Your task to perform on an android device: What is the recent news? Image 0: 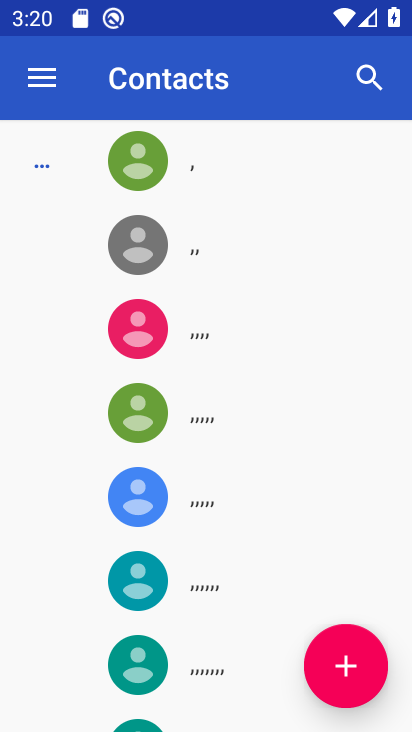
Step 0: press back button
Your task to perform on an android device: What is the recent news? Image 1: 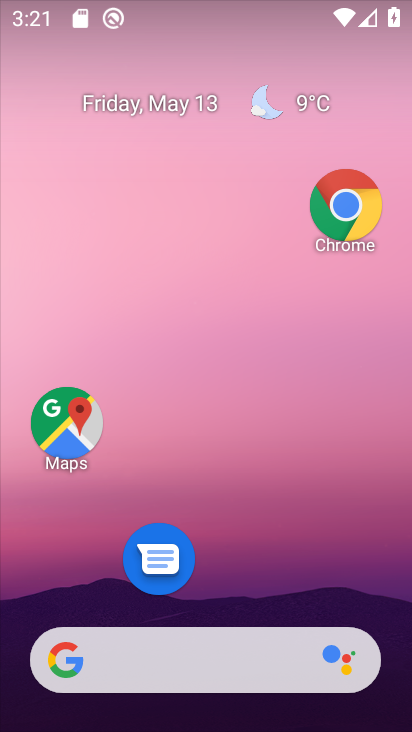
Step 1: click (199, 660)
Your task to perform on an android device: What is the recent news? Image 2: 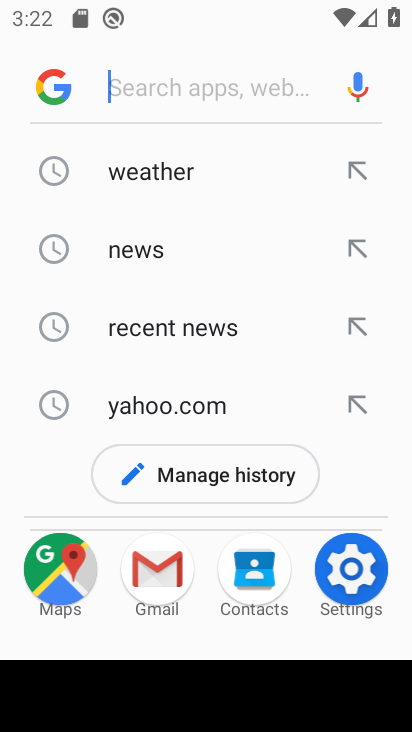
Step 2: click (183, 337)
Your task to perform on an android device: What is the recent news? Image 3: 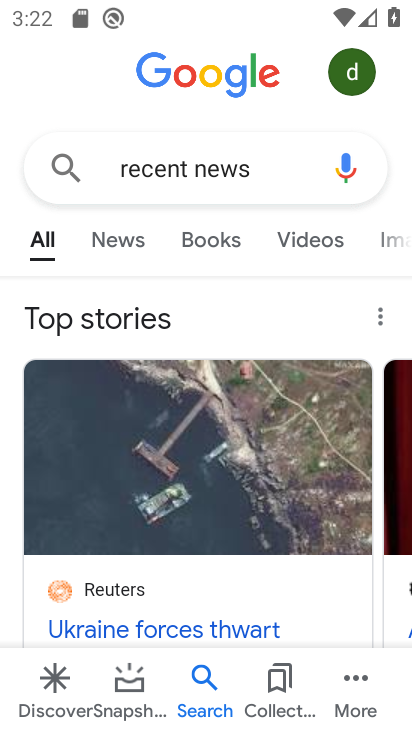
Step 3: task complete